Your task to perform on an android device: toggle location history Image 0: 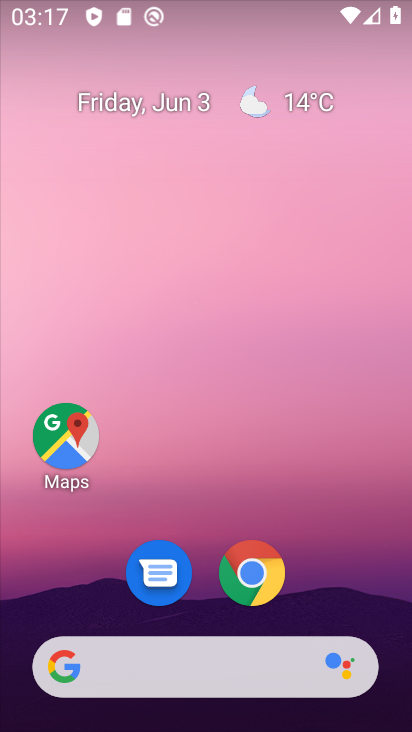
Step 0: drag from (255, 621) to (257, 0)
Your task to perform on an android device: toggle location history Image 1: 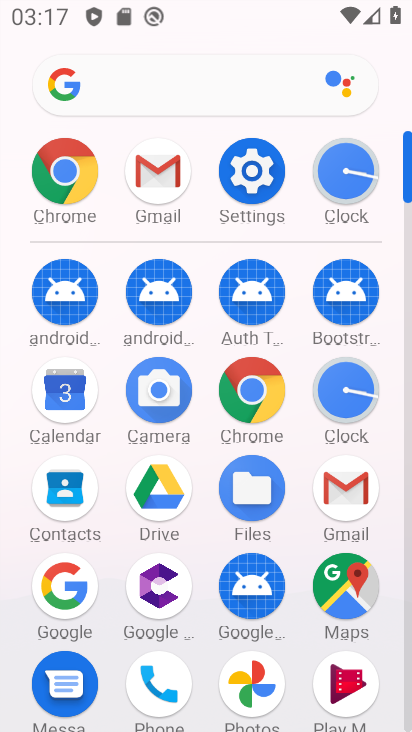
Step 1: click (255, 148)
Your task to perform on an android device: toggle location history Image 2: 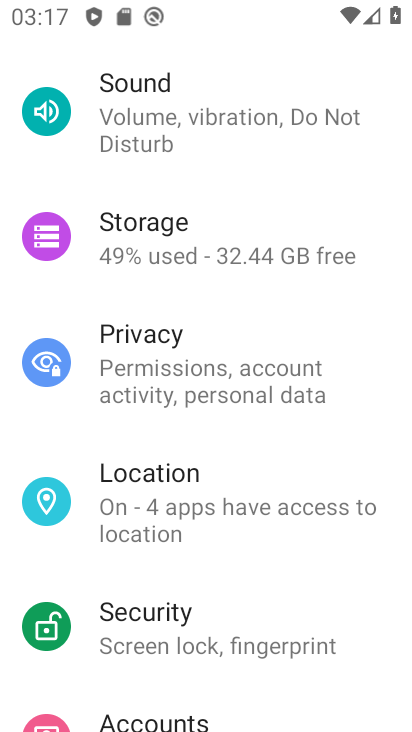
Step 2: click (250, 168)
Your task to perform on an android device: toggle location history Image 3: 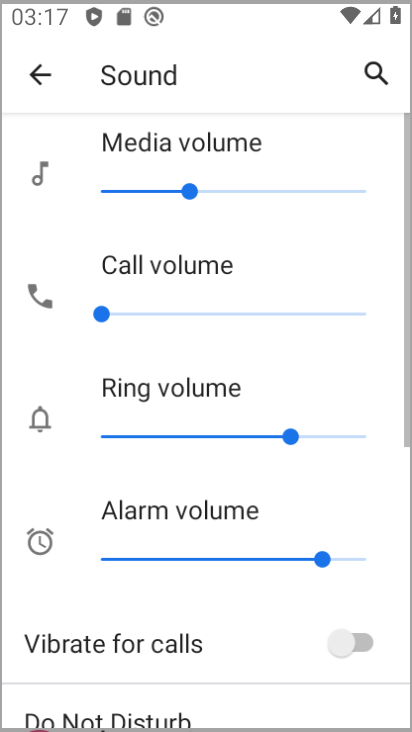
Step 3: click (265, 508)
Your task to perform on an android device: toggle location history Image 4: 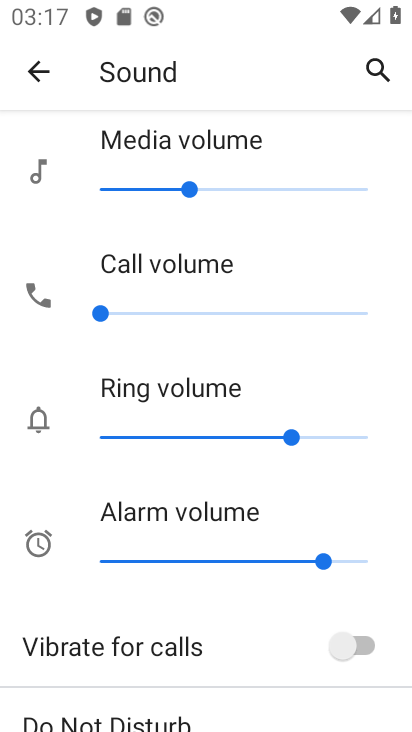
Step 4: press back button
Your task to perform on an android device: toggle location history Image 5: 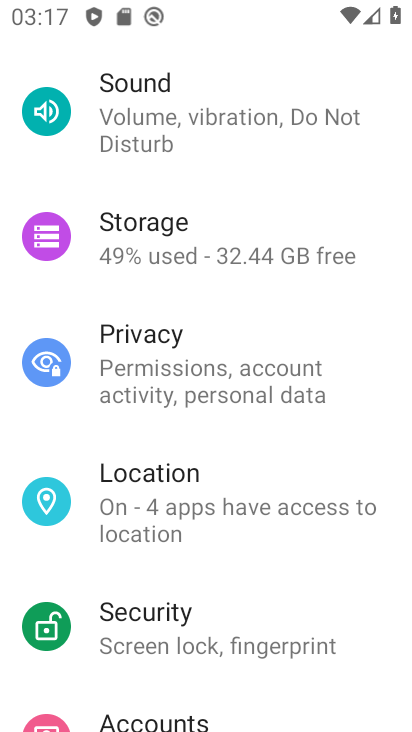
Step 5: click (184, 524)
Your task to perform on an android device: toggle location history Image 6: 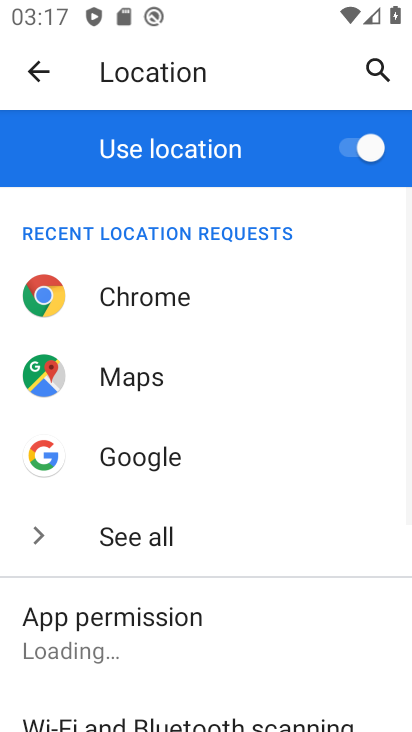
Step 6: drag from (191, 557) to (273, 4)
Your task to perform on an android device: toggle location history Image 7: 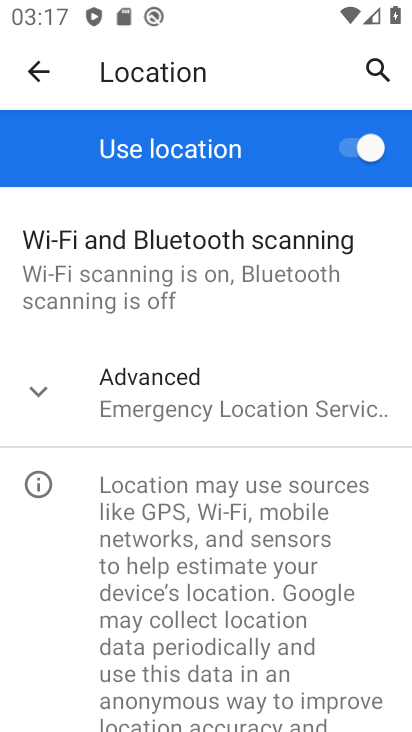
Step 7: click (217, 384)
Your task to perform on an android device: toggle location history Image 8: 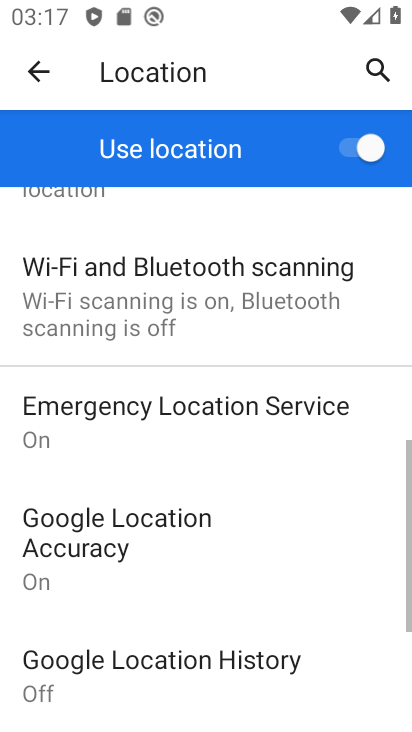
Step 8: click (152, 679)
Your task to perform on an android device: toggle location history Image 9: 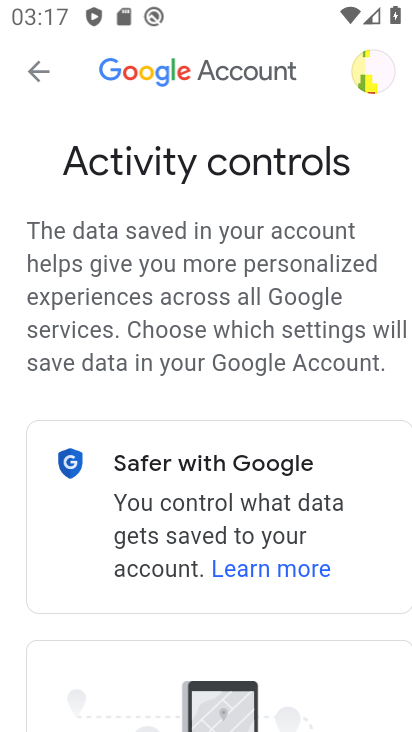
Step 9: drag from (334, 639) to (409, 296)
Your task to perform on an android device: toggle location history Image 10: 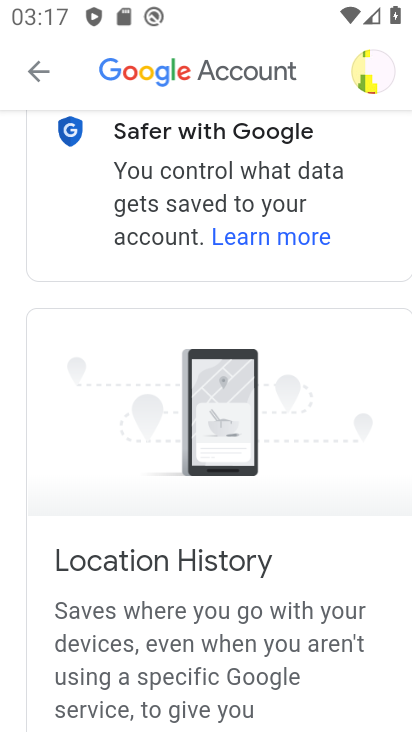
Step 10: drag from (276, 704) to (297, 174)
Your task to perform on an android device: toggle location history Image 11: 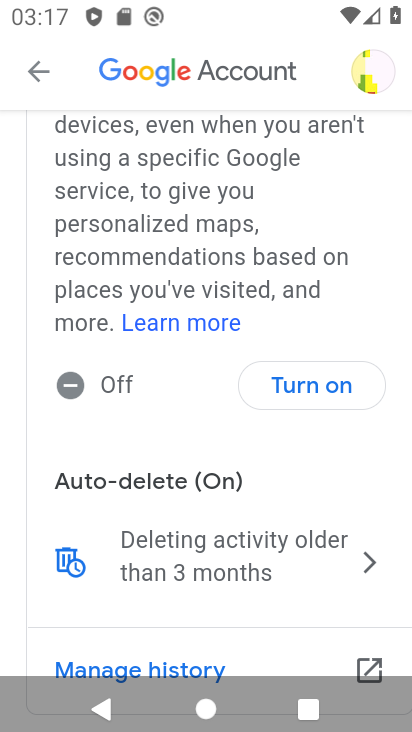
Step 11: click (306, 397)
Your task to perform on an android device: toggle location history Image 12: 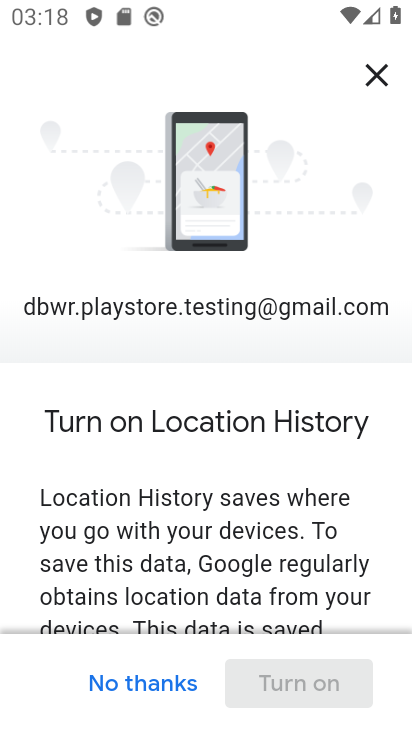
Step 12: drag from (248, 513) to (358, 4)
Your task to perform on an android device: toggle location history Image 13: 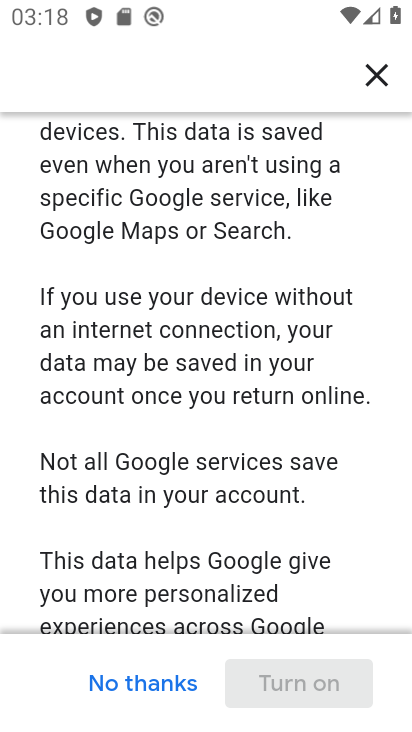
Step 13: drag from (276, 546) to (331, 2)
Your task to perform on an android device: toggle location history Image 14: 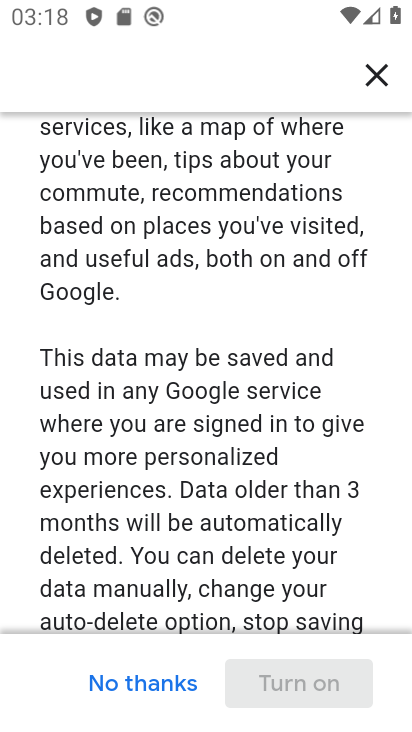
Step 14: drag from (285, 523) to (270, 71)
Your task to perform on an android device: toggle location history Image 15: 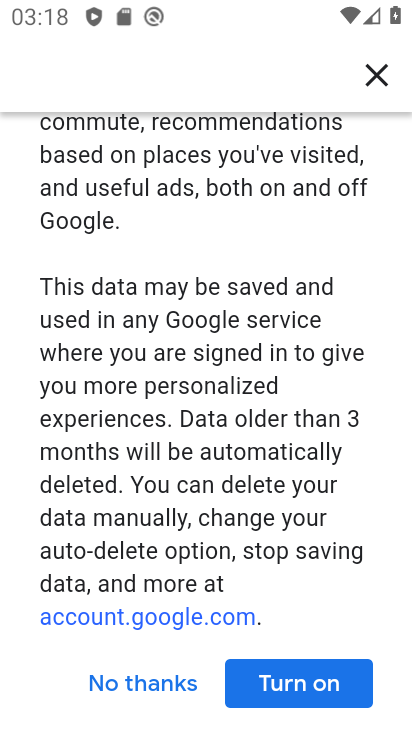
Step 15: click (321, 670)
Your task to perform on an android device: toggle location history Image 16: 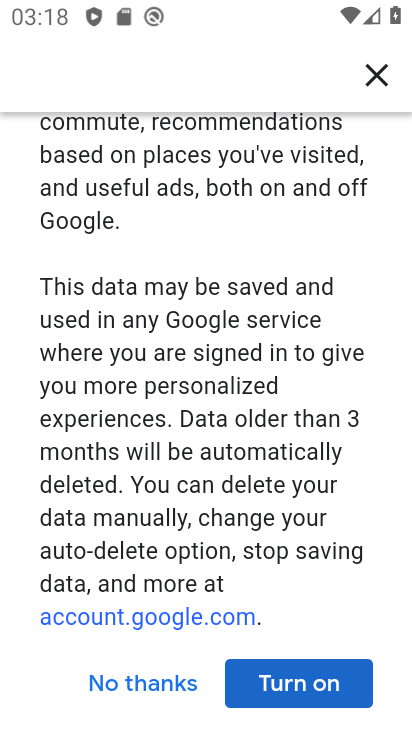
Step 16: click (321, 670)
Your task to perform on an android device: toggle location history Image 17: 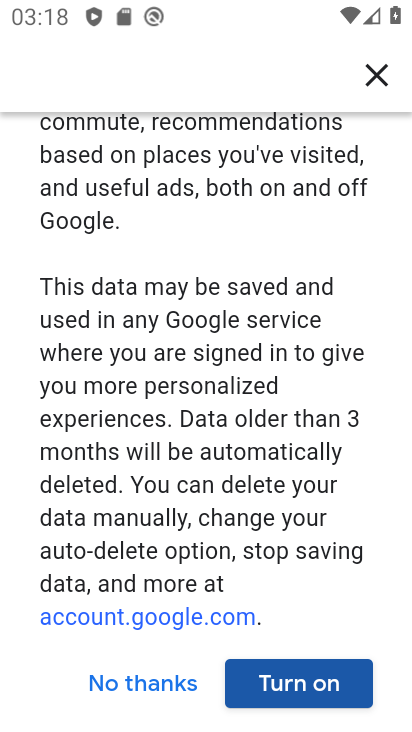
Step 17: click (304, 688)
Your task to perform on an android device: toggle location history Image 18: 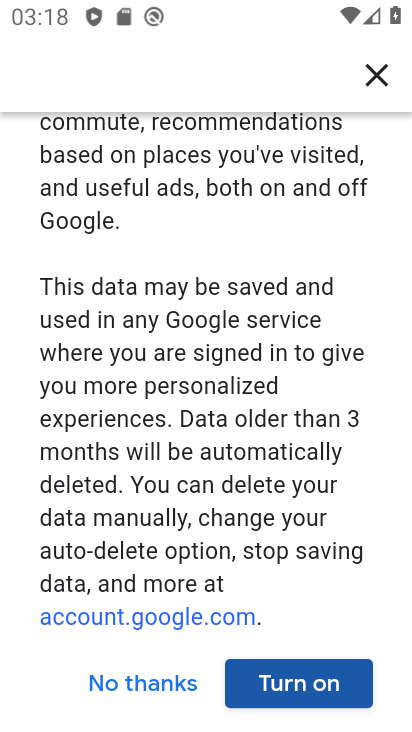
Step 18: click (303, 689)
Your task to perform on an android device: toggle location history Image 19: 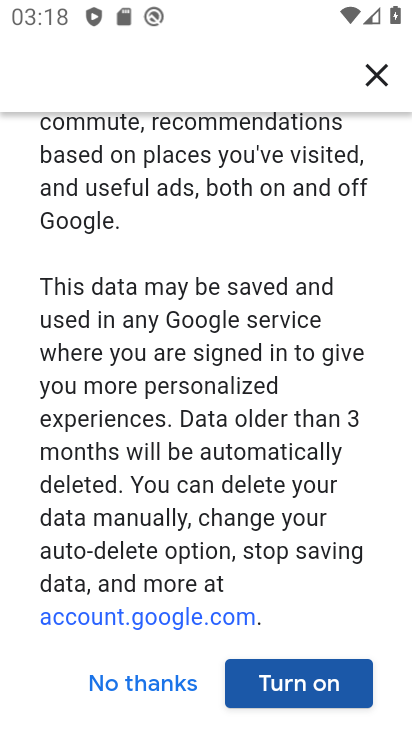
Step 19: click (303, 689)
Your task to perform on an android device: toggle location history Image 20: 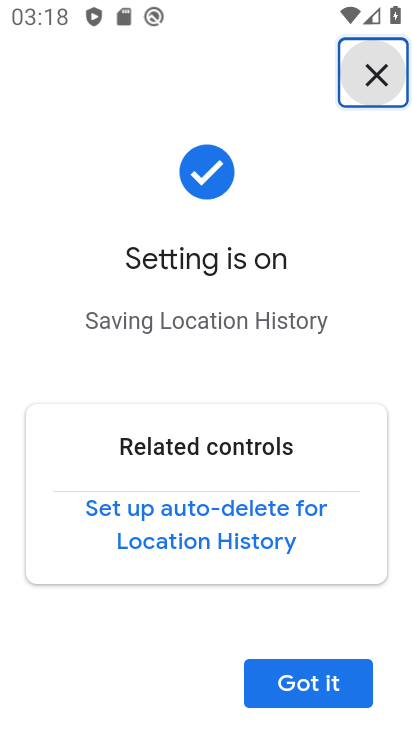
Step 20: task complete